Your task to perform on an android device: turn on priority inbox in the gmail app Image 0: 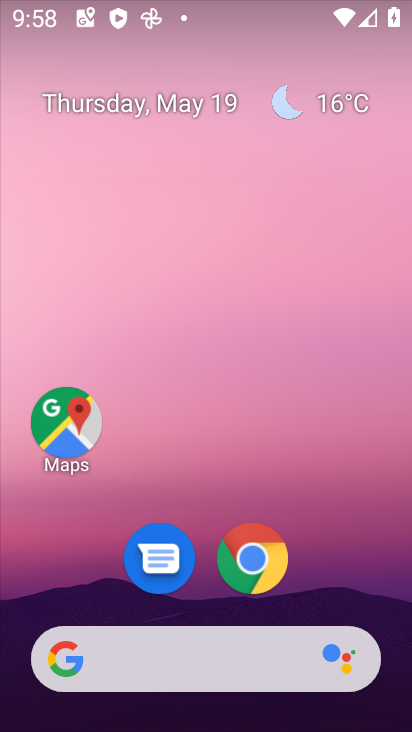
Step 0: drag from (210, 725) to (209, 125)
Your task to perform on an android device: turn on priority inbox in the gmail app Image 1: 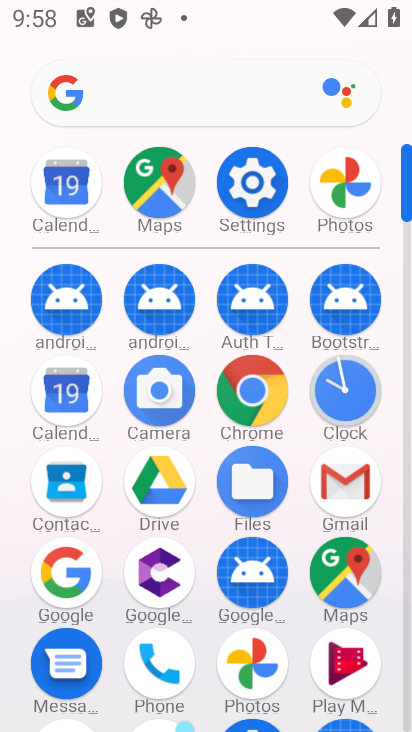
Step 1: click (337, 476)
Your task to perform on an android device: turn on priority inbox in the gmail app Image 2: 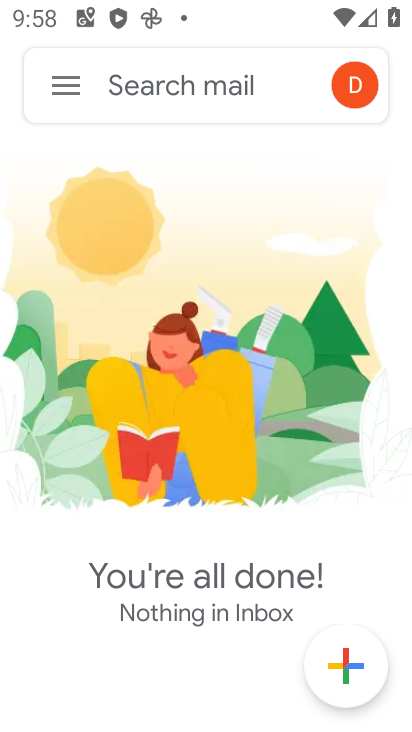
Step 2: click (67, 86)
Your task to perform on an android device: turn on priority inbox in the gmail app Image 3: 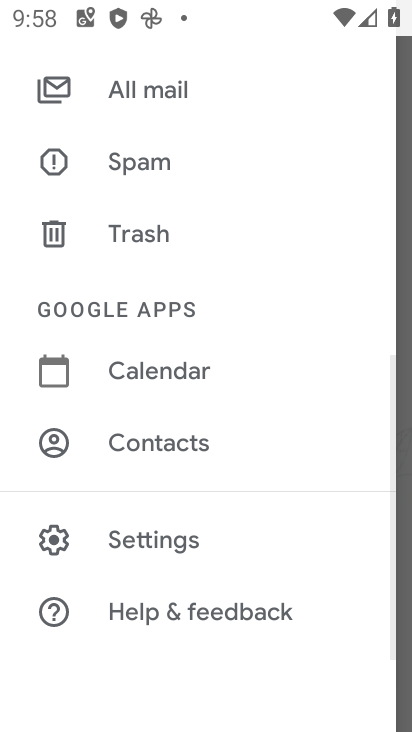
Step 3: drag from (134, 577) to (133, 298)
Your task to perform on an android device: turn on priority inbox in the gmail app Image 4: 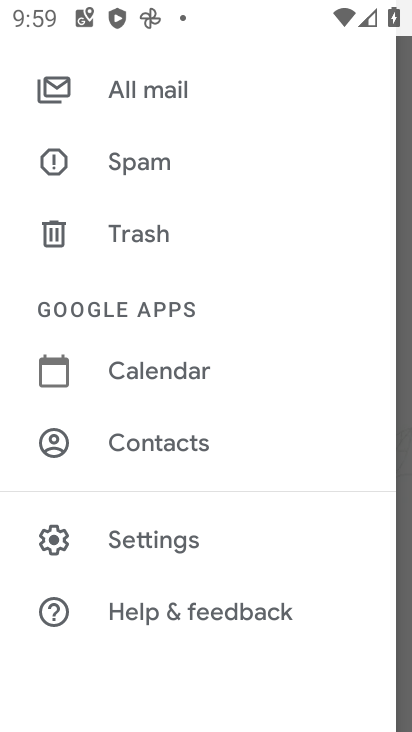
Step 4: click (164, 543)
Your task to perform on an android device: turn on priority inbox in the gmail app Image 5: 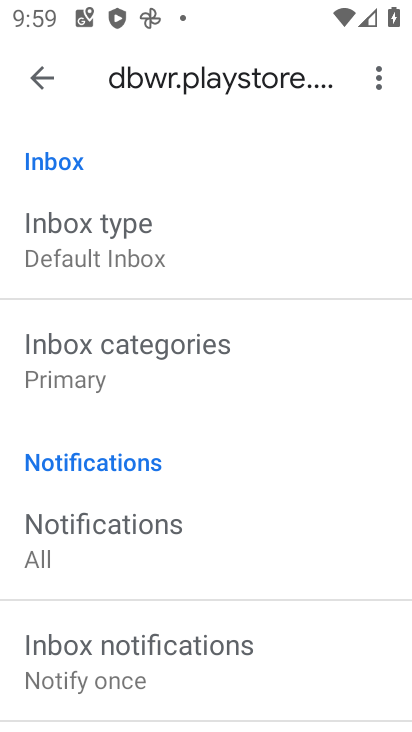
Step 5: drag from (169, 253) to (150, 485)
Your task to perform on an android device: turn on priority inbox in the gmail app Image 6: 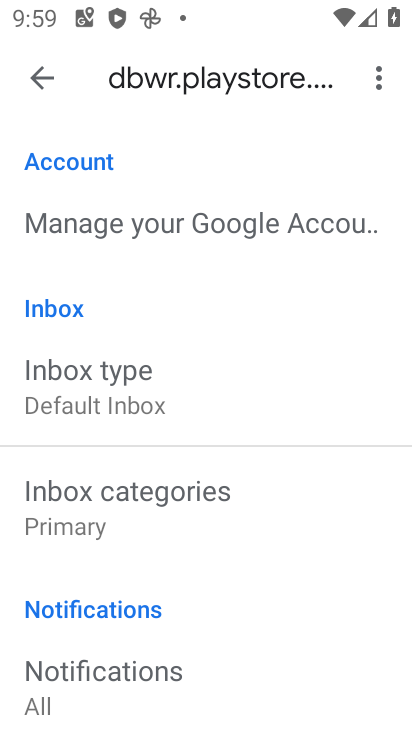
Step 6: drag from (189, 205) to (199, 607)
Your task to perform on an android device: turn on priority inbox in the gmail app Image 7: 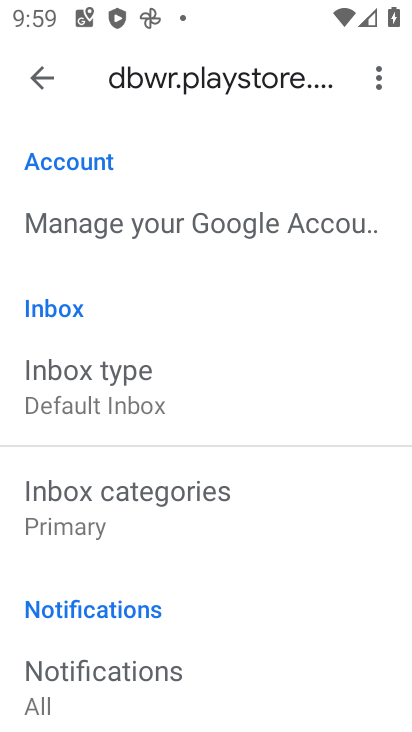
Step 7: click (101, 384)
Your task to perform on an android device: turn on priority inbox in the gmail app Image 8: 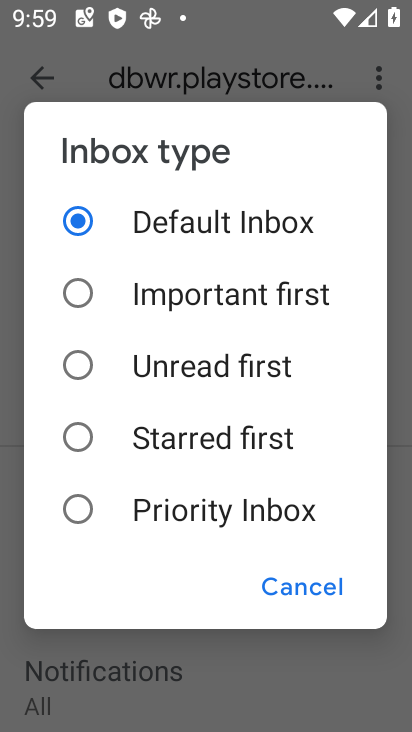
Step 8: click (79, 505)
Your task to perform on an android device: turn on priority inbox in the gmail app Image 9: 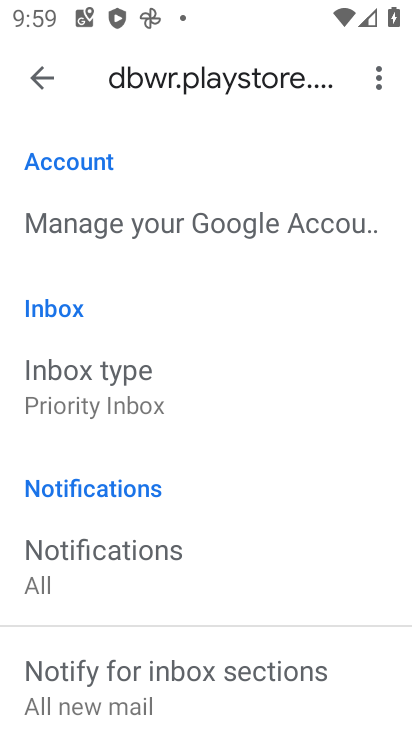
Step 9: task complete